Your task to perform on an android device: Set the phone to "Do not disturb". Image 0: 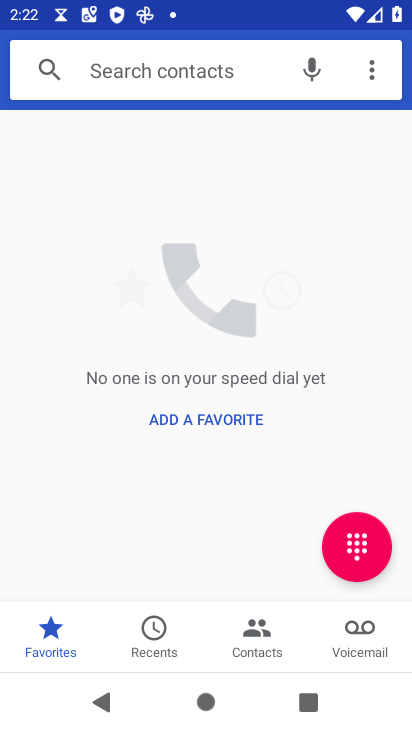
Step 0: press home button
Your task to perform on an android device: Set the phone to "Do not disturb". Image 1: 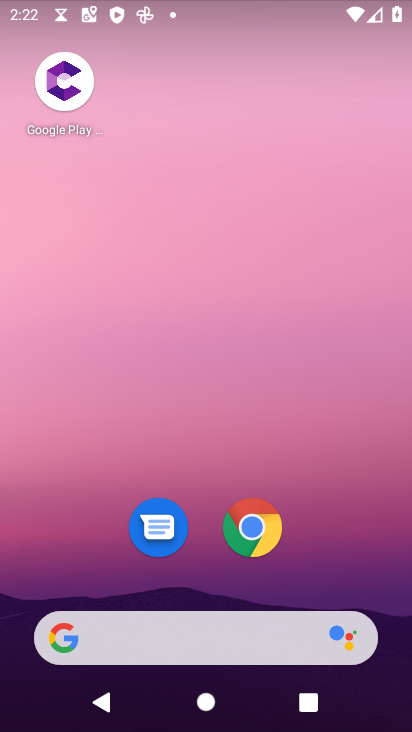
Step 1: drag from (350, 543) to (228, 34)
Your task to perform on an android device: Set the phone to "Do not disturb". Image 2: 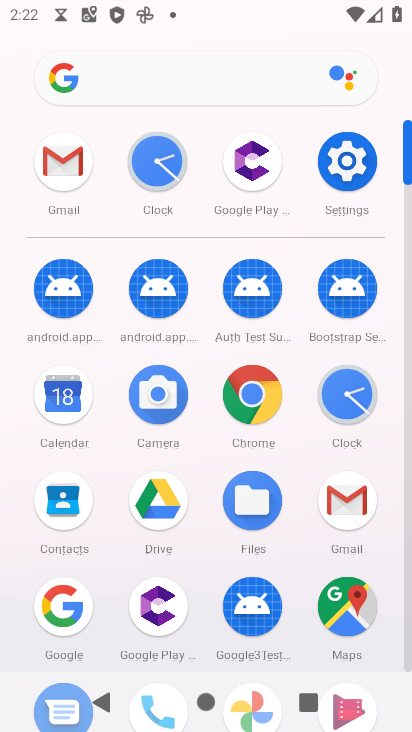
Step 2: click (347, 181)
Your task to perform on an android device: Set the phone to "Do not disturb". Image 3: 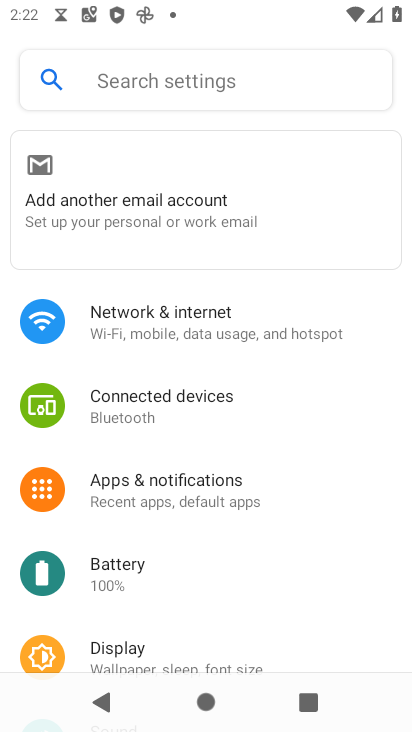
Step 3: drag from (222, 612) to (220, 328)
Your task to perform on an android device: Set the phone to "Do not disturb". Image 4: 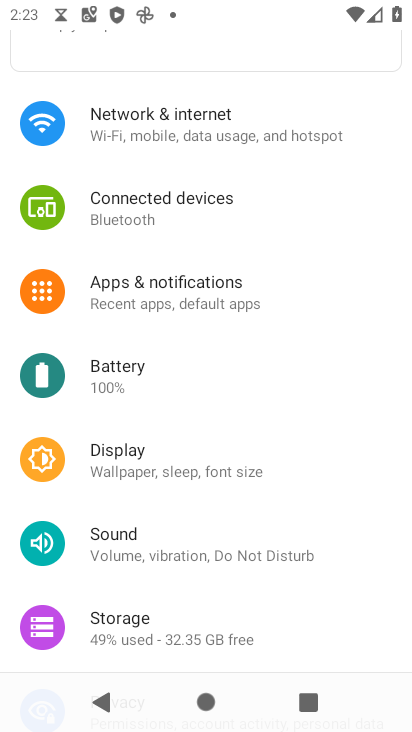
Step 4: click (231, 546)
Your task to perform on an android device: Set the phone to "Do not disturb". Image 5: 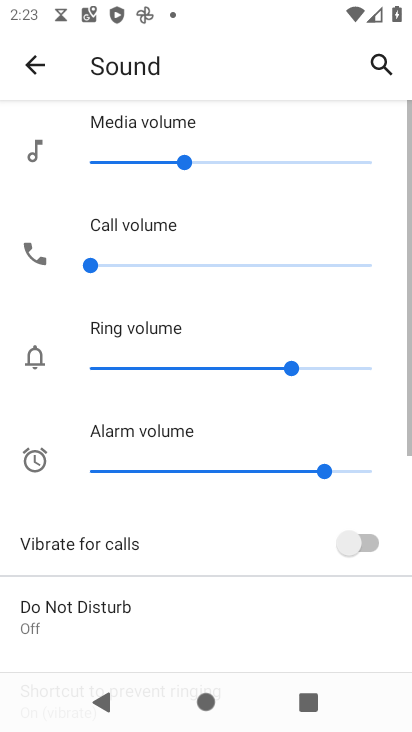
Step 5: drag from (261, 614) to (217, 326)
Your task to perform on an android device: Set the phone to "Do not disturb". Image 6: 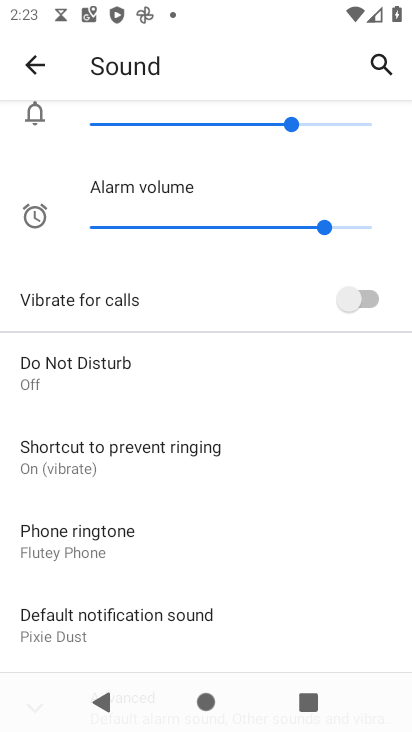
Step 6: click (157, 380)
Your task to perform on an android device: Set the phone to "Do not disturb". Image 7: 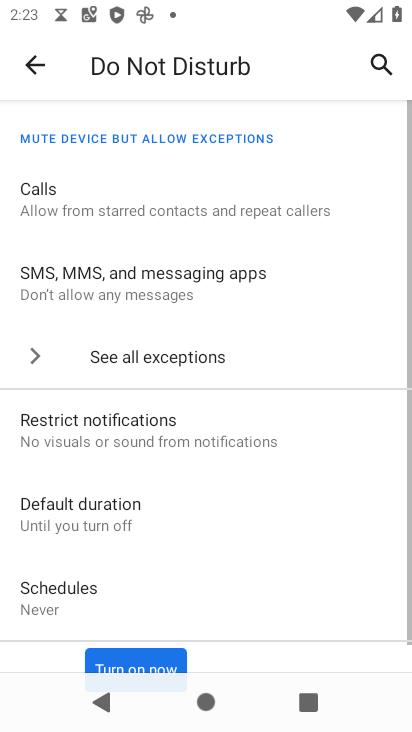
Step 7: drag from (252, 574) to (216, 361)
Your task to perform on an android device: Set the phone to "Do not disturb". Image 8: 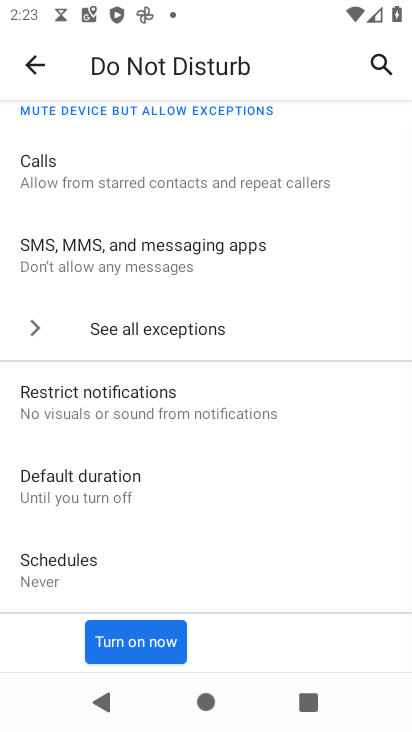
Step 8: click (155, 632)
Your task to perform on an android device: Set the phone to "Do not disturb". Image 9: 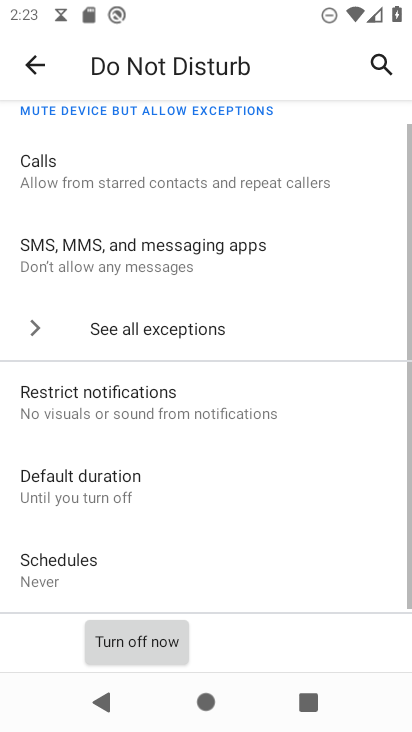
Step 9: task complete